Your task to perform on an android device: Open Wikipedia Image 0: 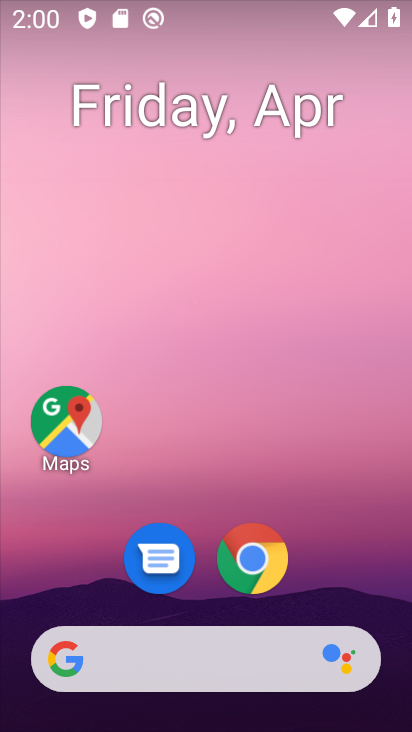
Step 0: click (252, 562)
Your task to perform on an android device: Open Wikipedia Image 1: 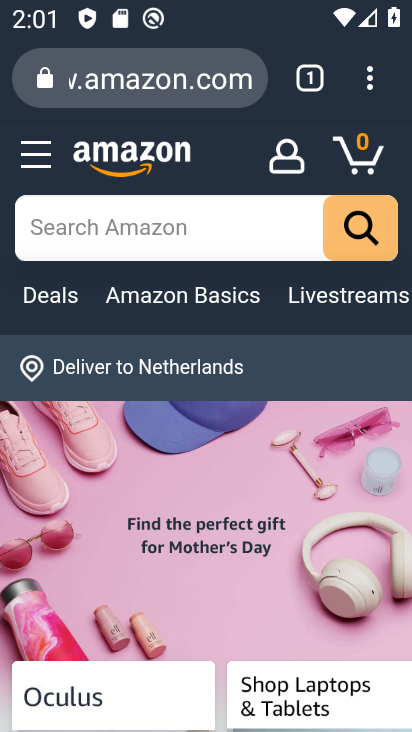
Step 1: click (312, 84)
Your task to perform on an android device: Open Wikipedia Image 2: 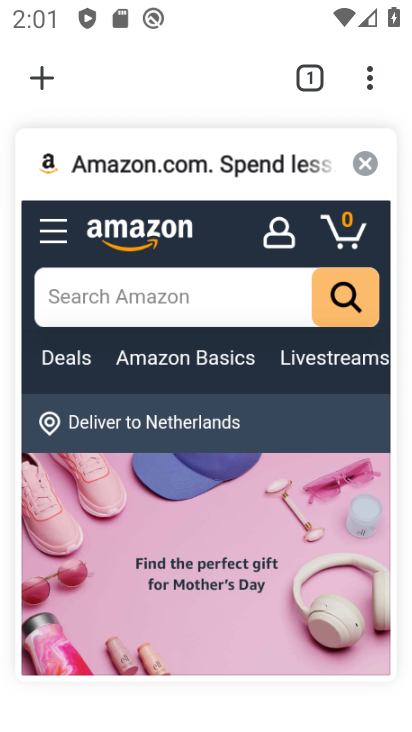
Step 2: click (43, 69)
Your task to perform on an android device: Open Wikipedia Image 3: 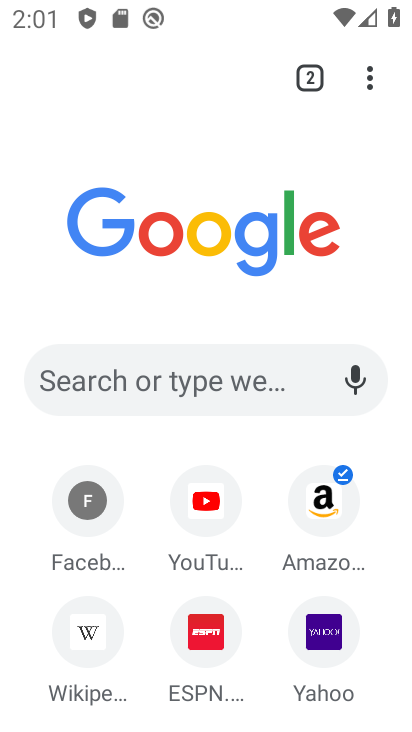
Step 3: click (79, 642)
Your task to perform on an android device: Open Wikipedia Image 4: 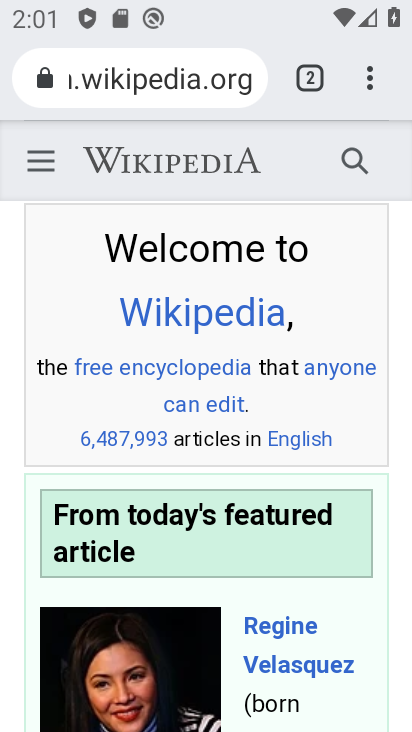
Step 4: task complete